Your task to perform on an android device: What's the weather like in Chicago? Image 0: 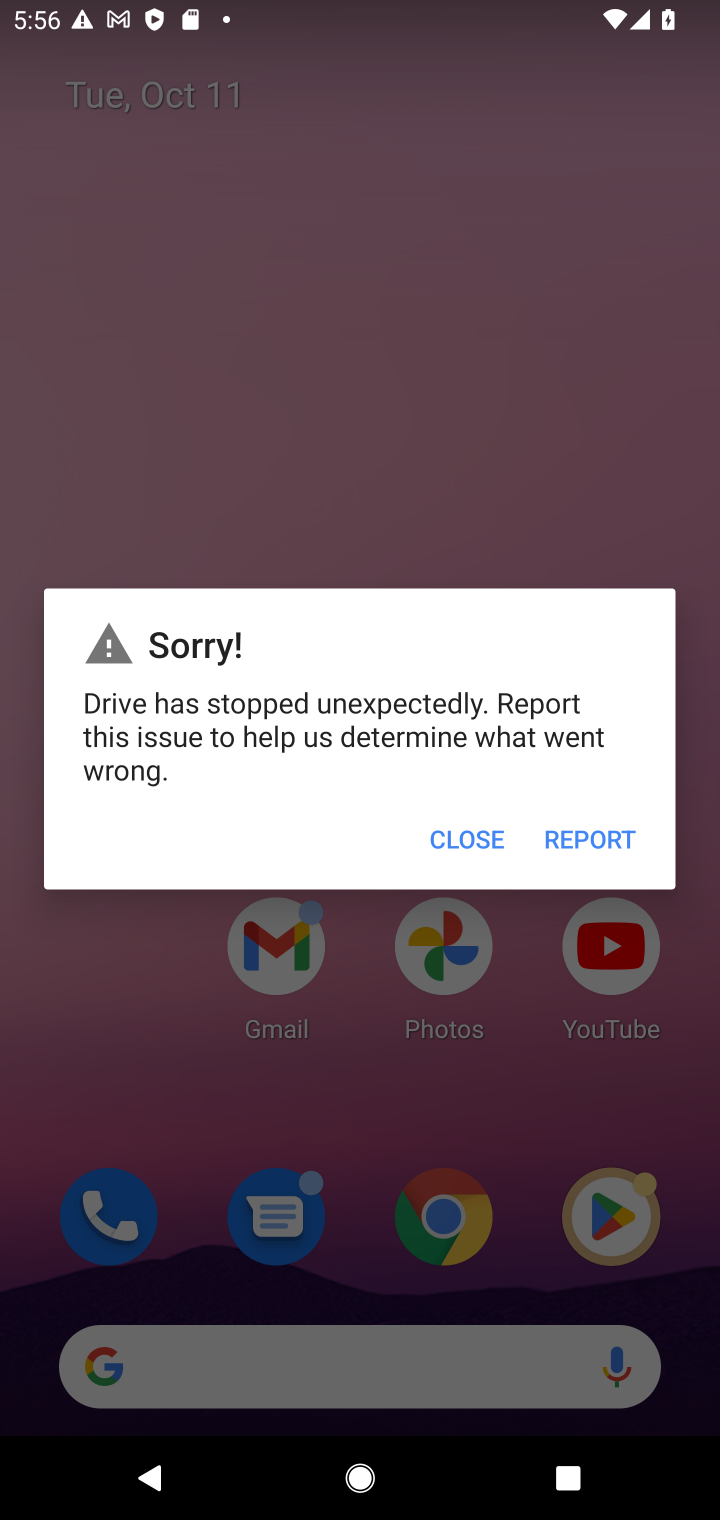
Step 0: press home button
Your task to perform on an android device: What's the weather like in Chicago? Image 1: 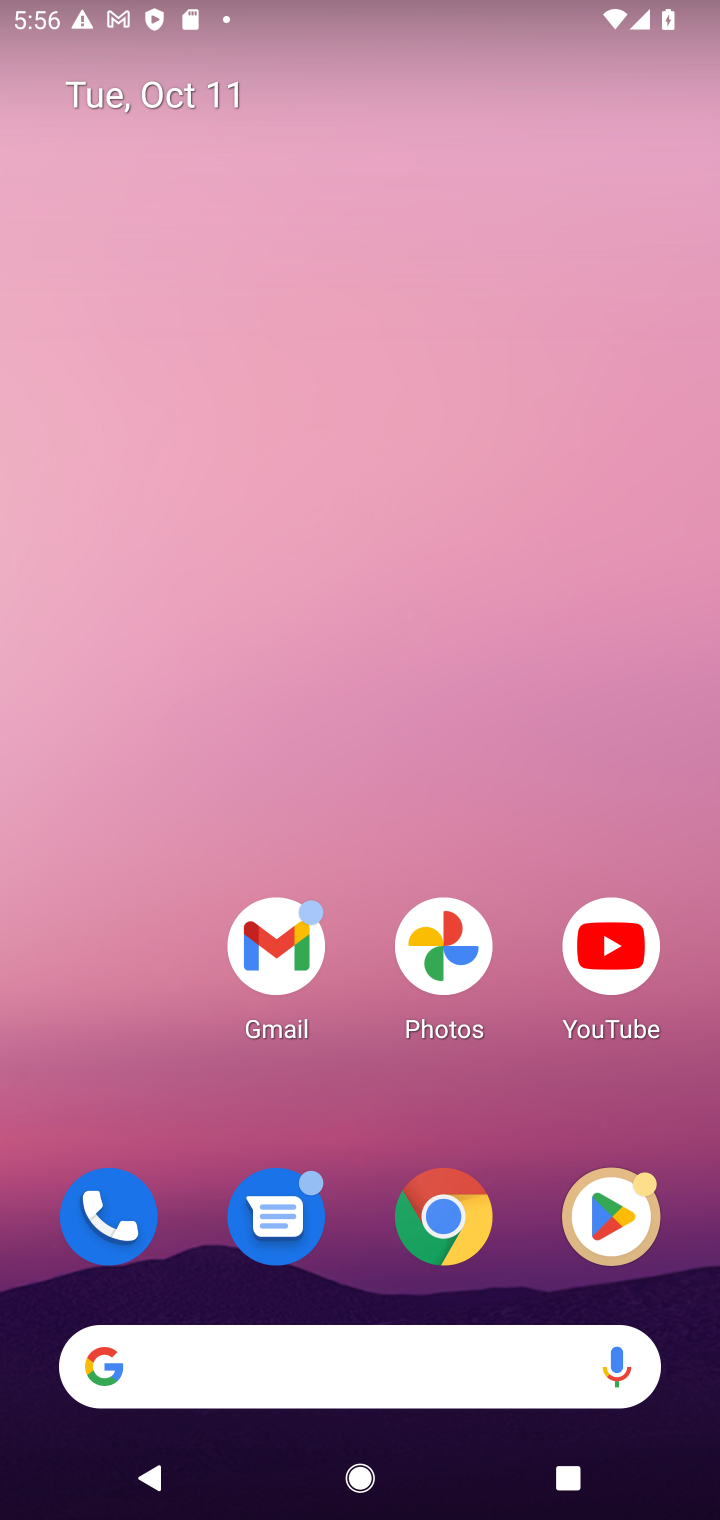
Step 1: click (441, 1218)
Your task to perform on an android device: What's the weather like in Chicago? Image 2: 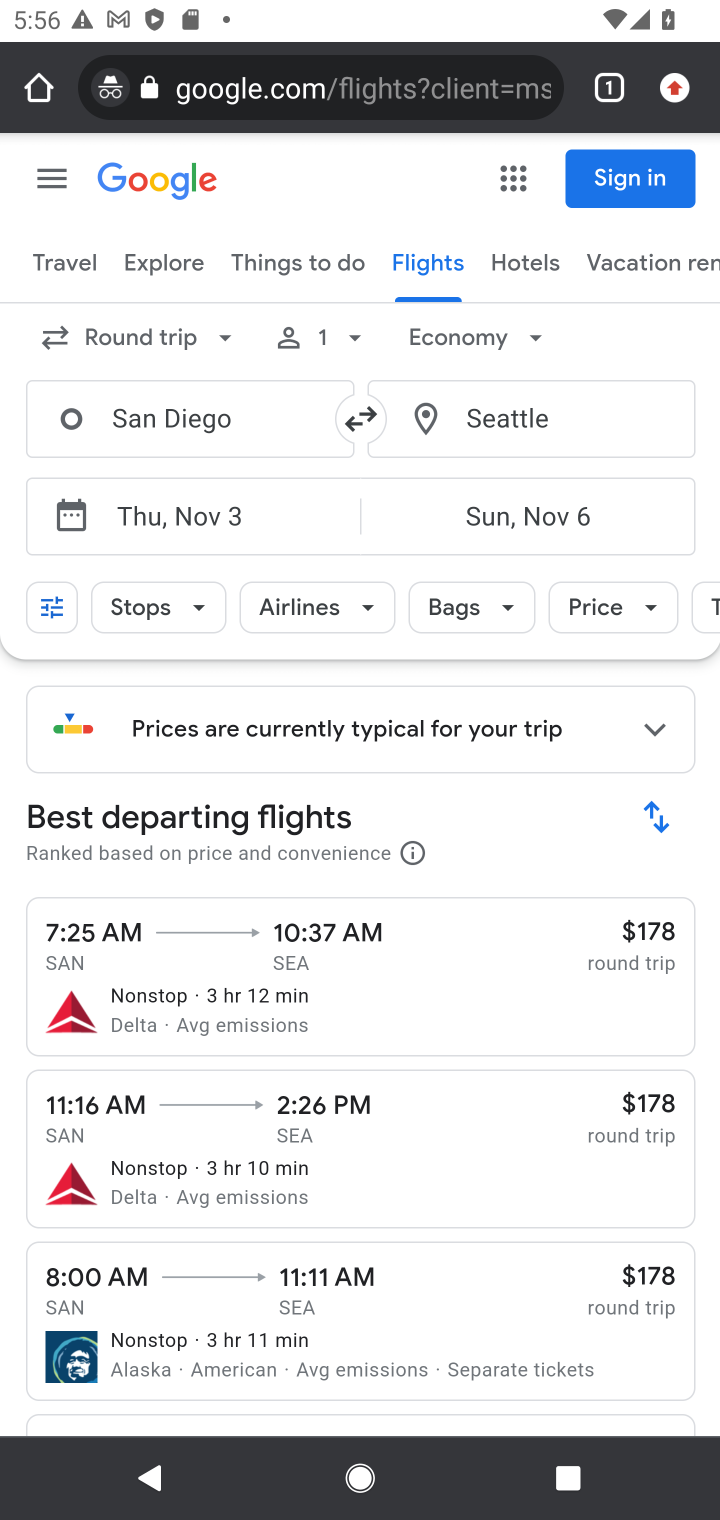
Step 2: click (473, 94)
Your task to perform on an android device: What's the weather like in Chicago? Image 3: 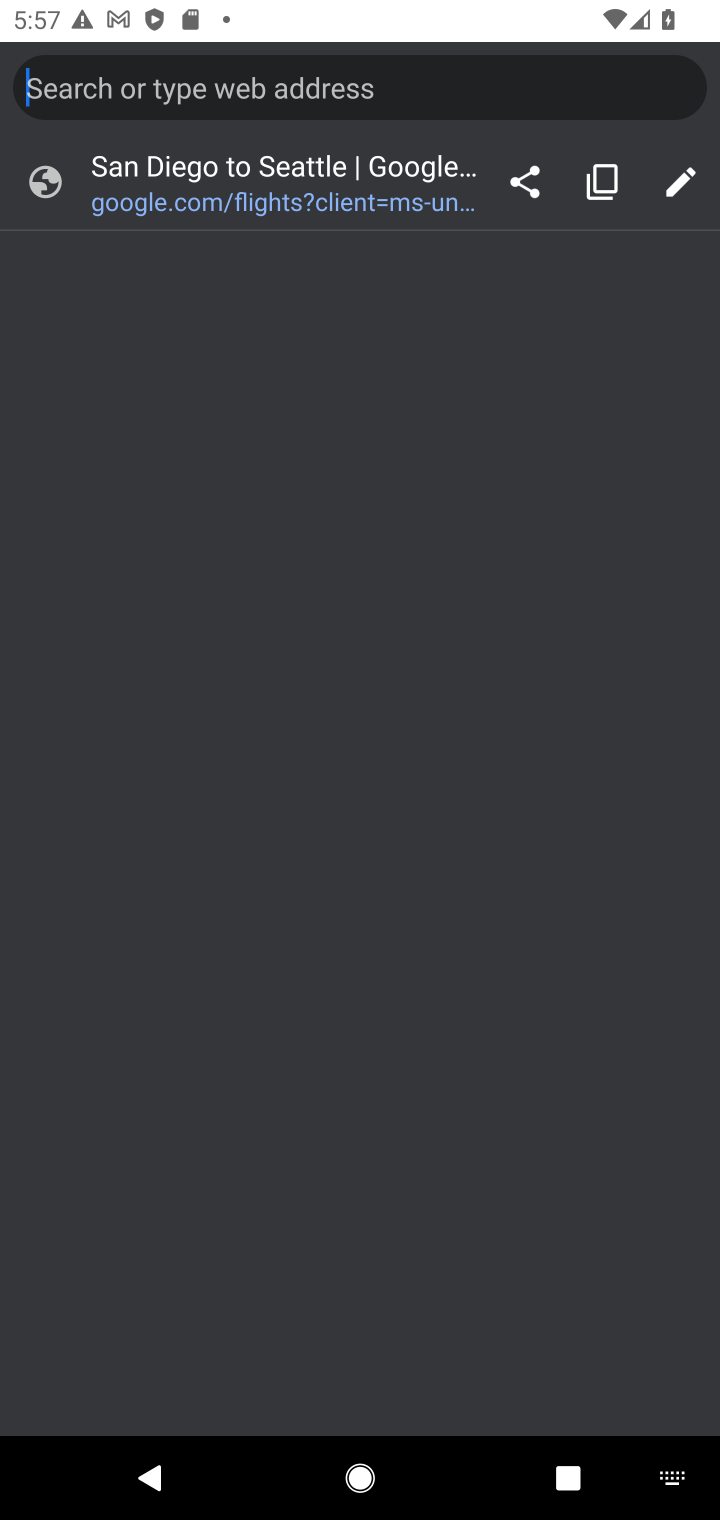
Step 3: type "What's the weather like in Chicago?"
Your task to perform on an android device: What's the weather like in Chicago? Image 4: 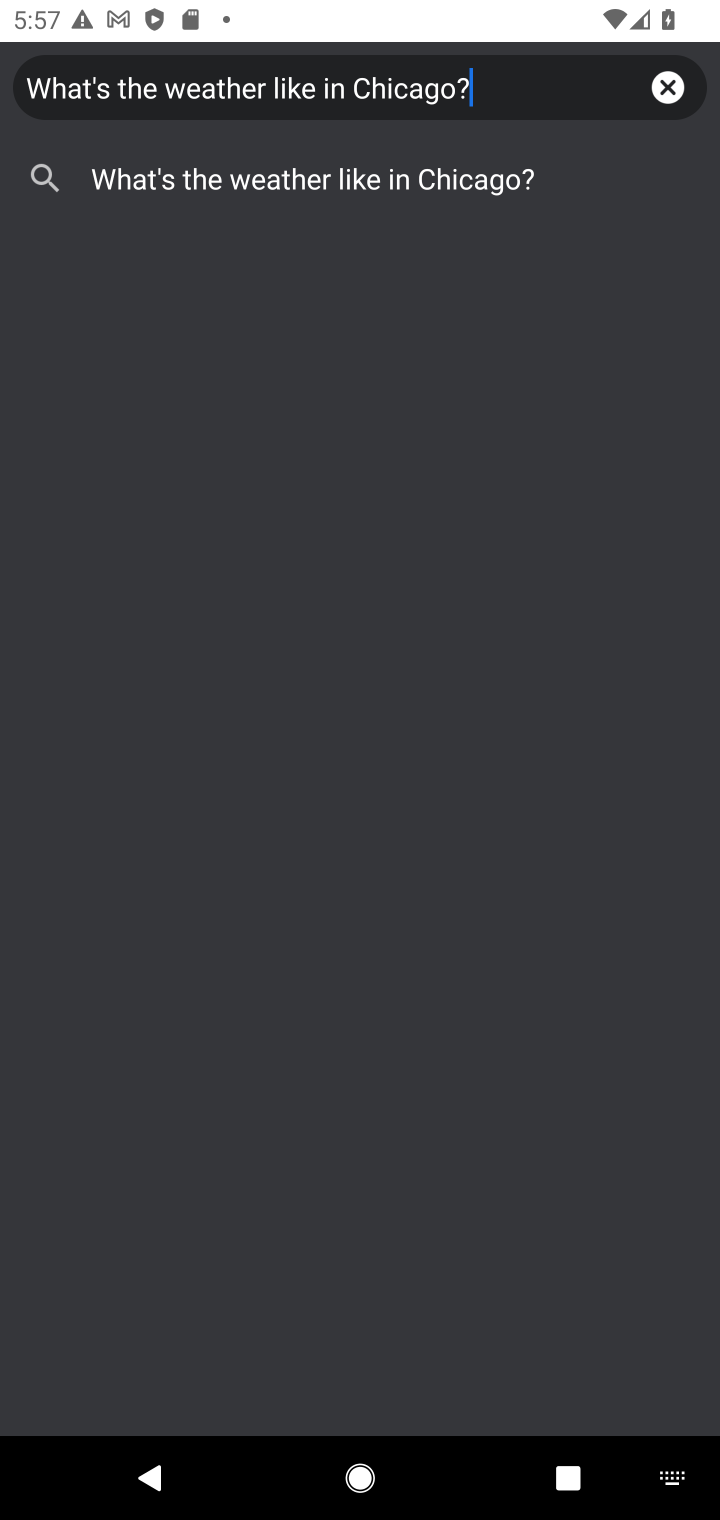
Step 4: click (286, 182)
Your task to perform on an android device: What's the weather like in Chicago? Image 5: 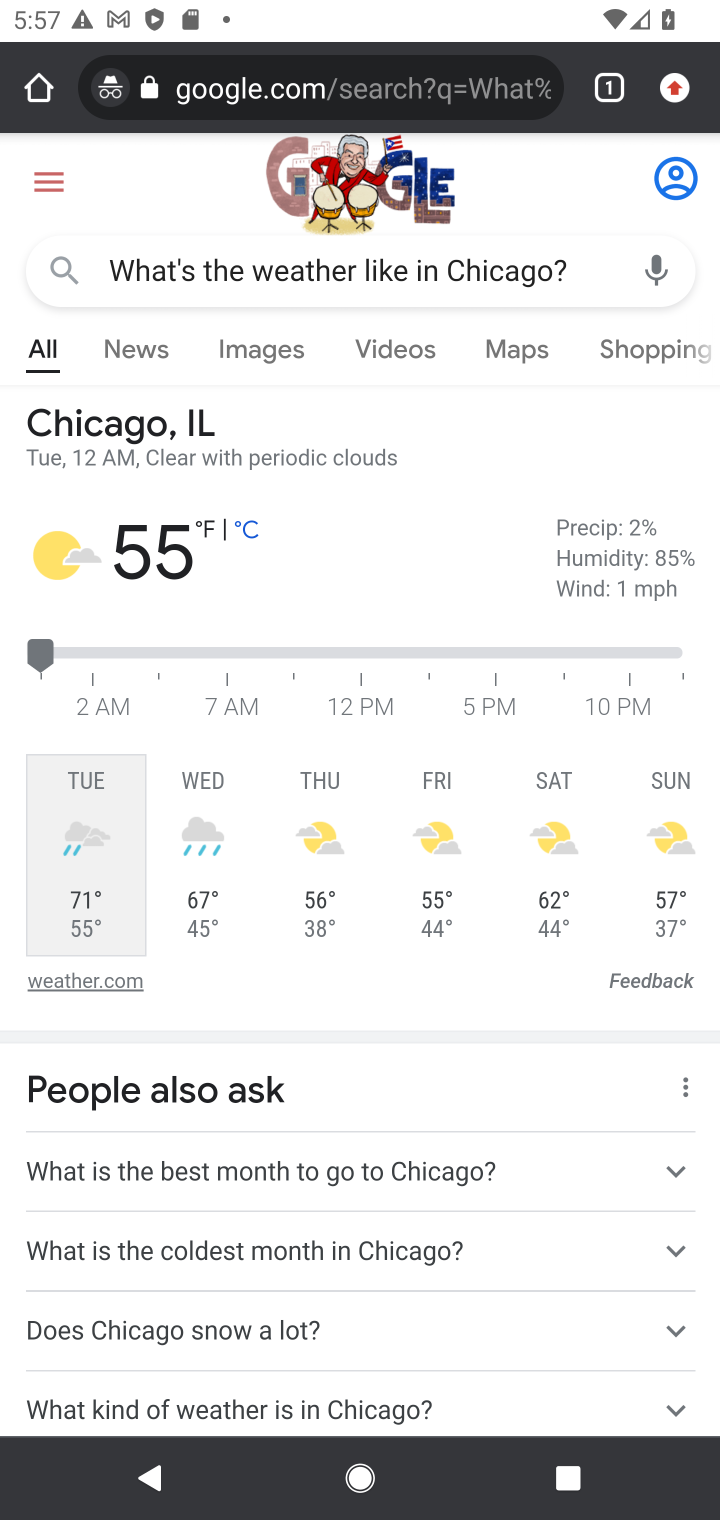
Step 5: task complete